Your task to perform on an android device: What's the weather going to be this weekend? Image 0: 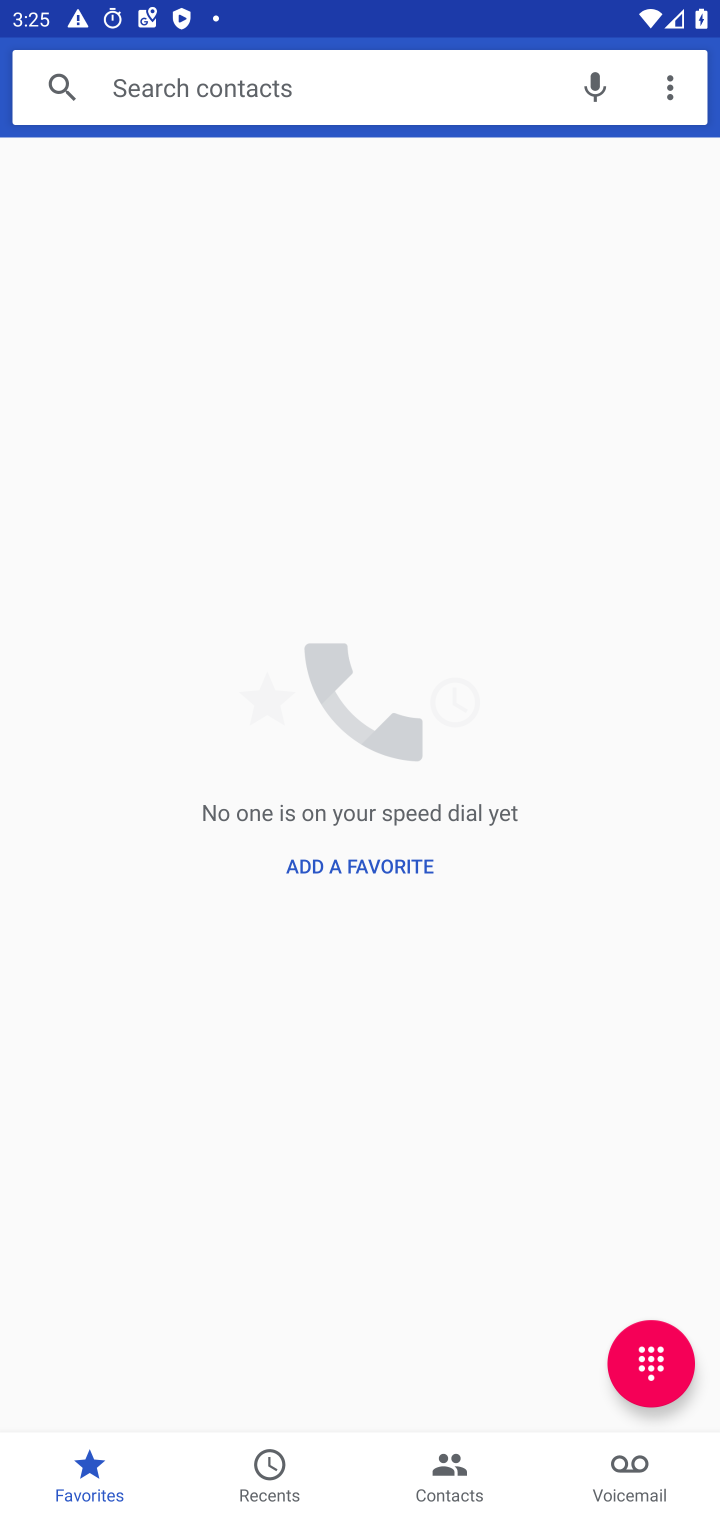
Step 0: press home button
Your task to perform on an android device: What's the weather going to be this weekend? Image 1: 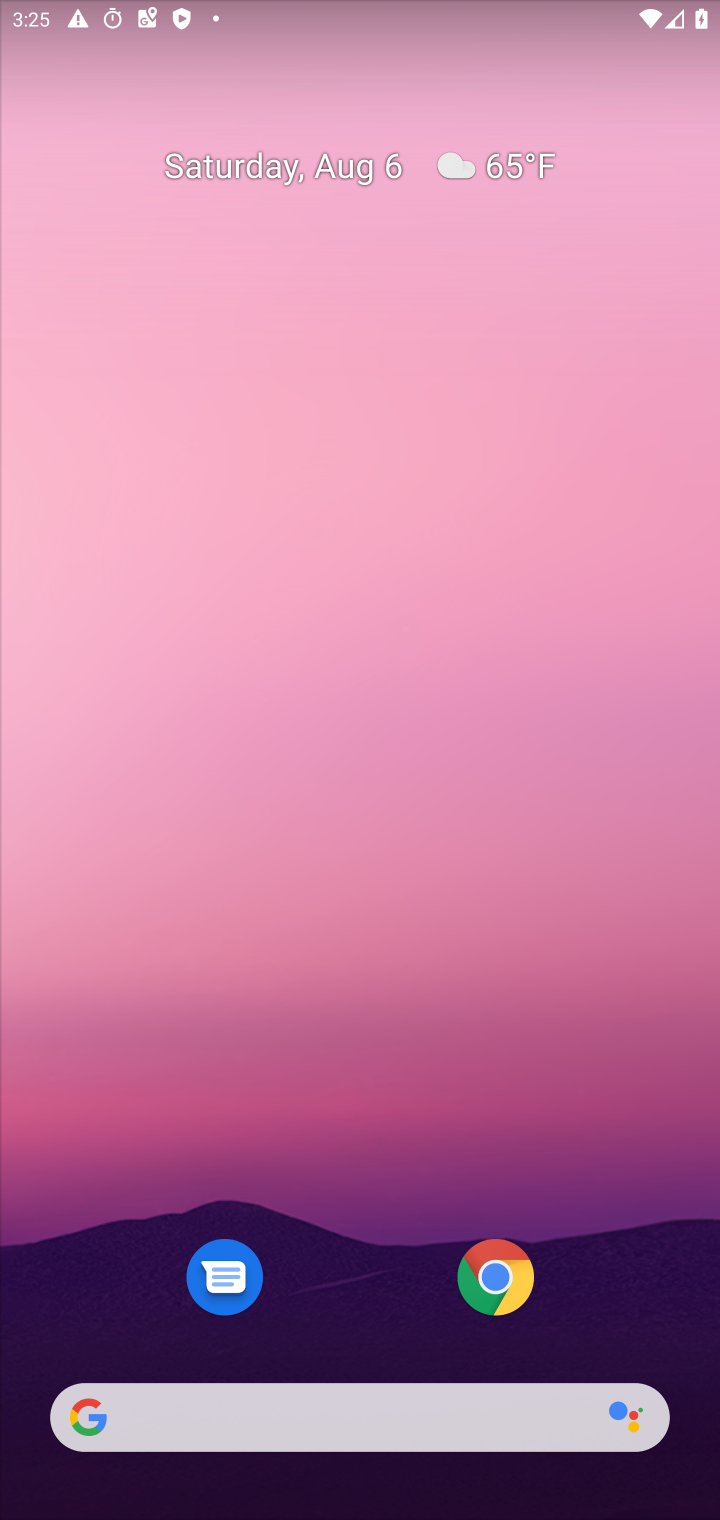
Step 1: drag from (421, 1426) to (229, 10)
Your task to perform on an android device: What's the weather going to be this weekend? Image 2: 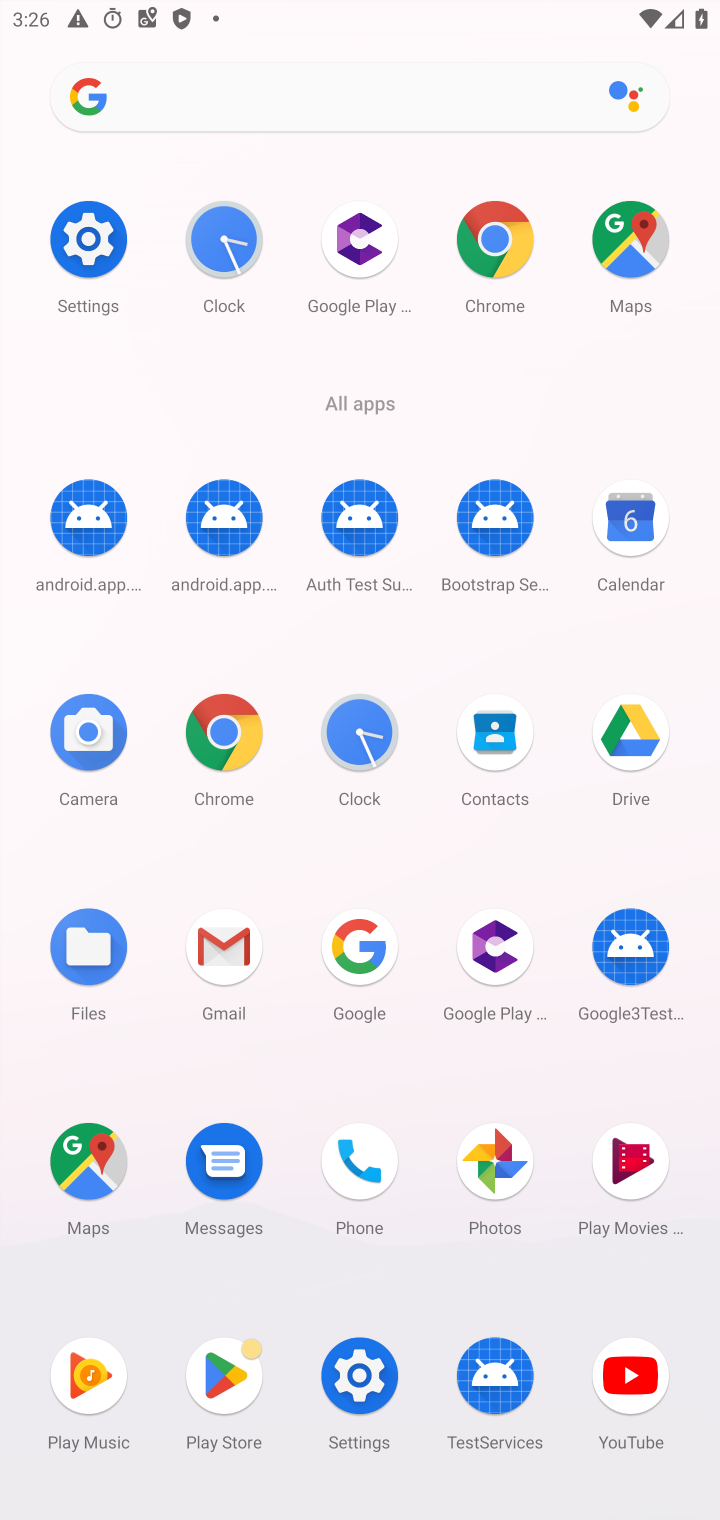
Step 2: click (362, 940)
Your task to perform on an android device: What's the weather going to be this weekend? Image 3: 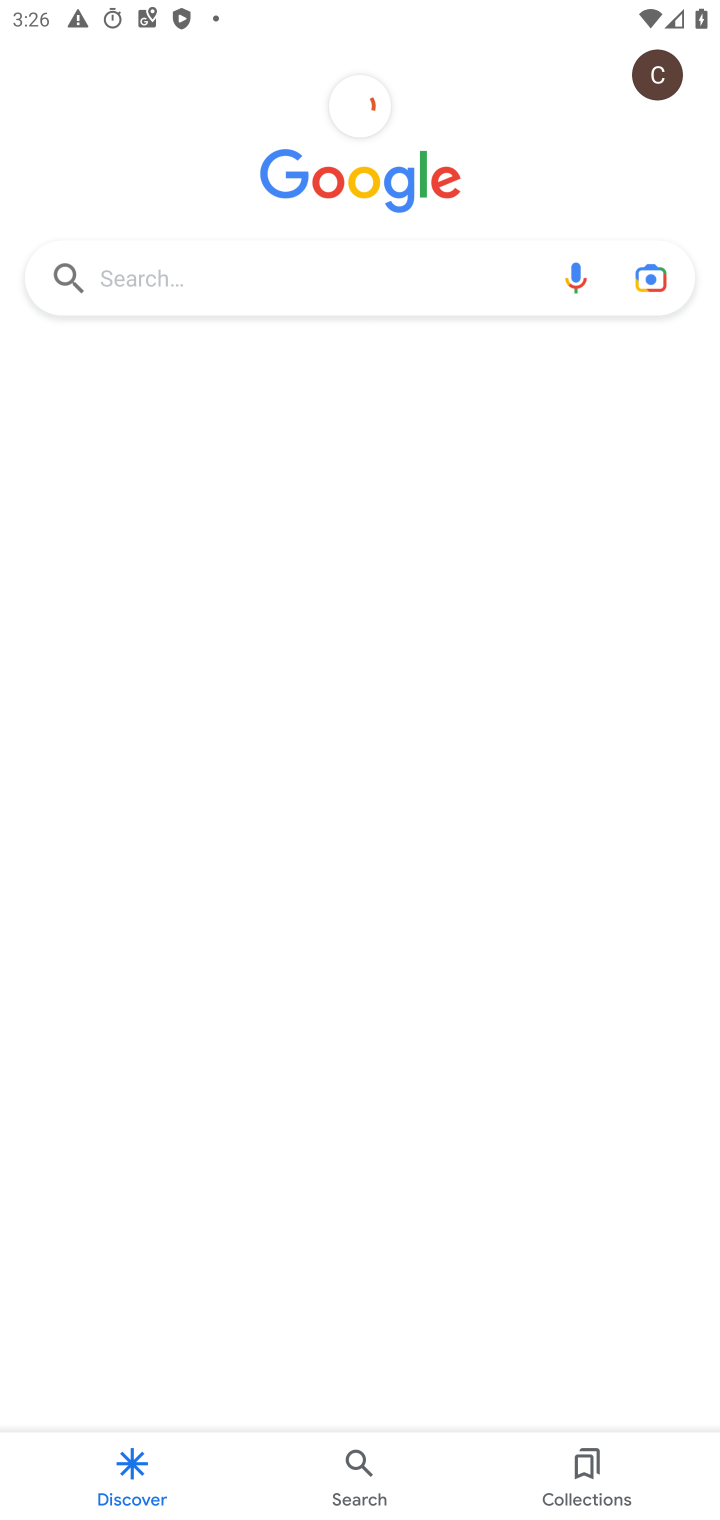
Step 3: click (355, 246)
Your task to perform on an android device: What's the weather going to be this weekend? Image 4: 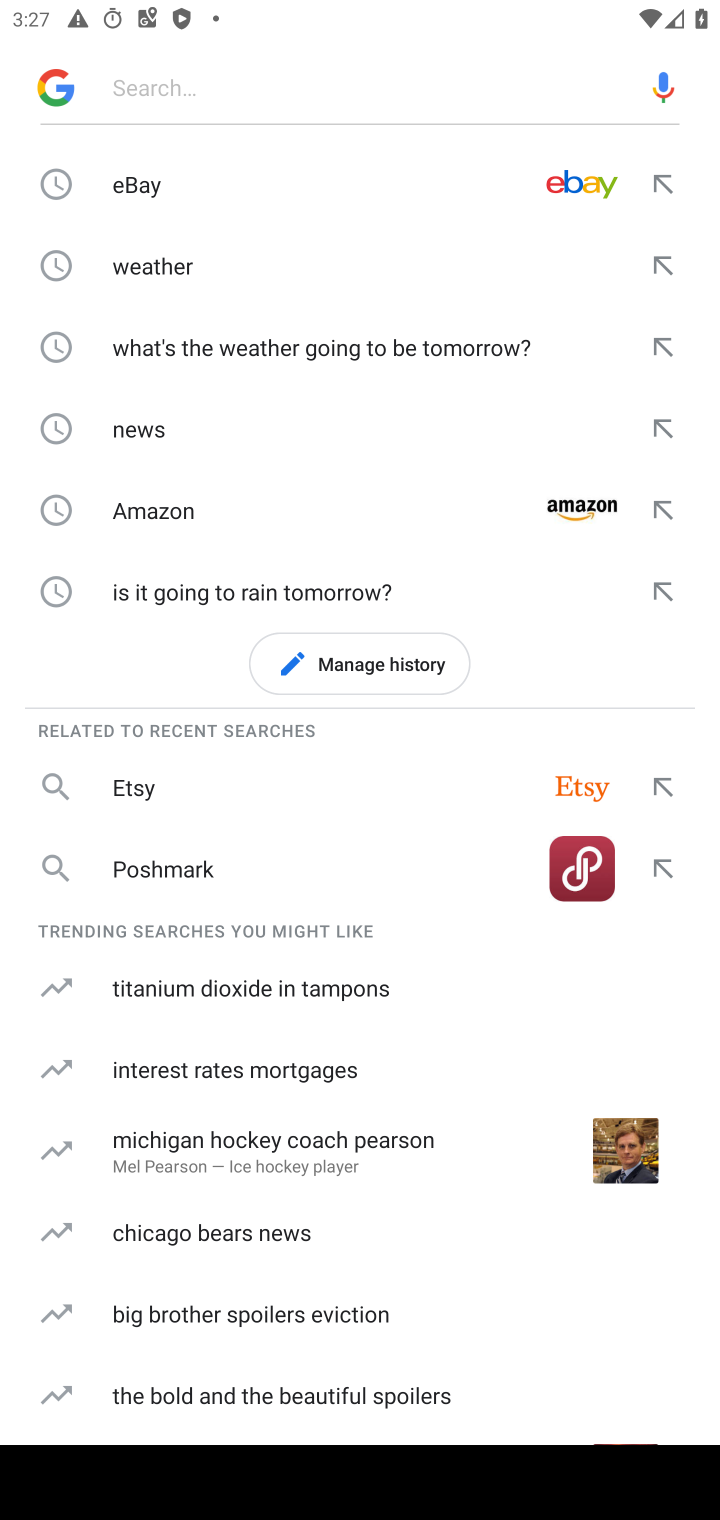
Step 4: type "weather going to be this weekend"
Your task to perform on an android device: What's the weather going to be this weekend? Image 5: 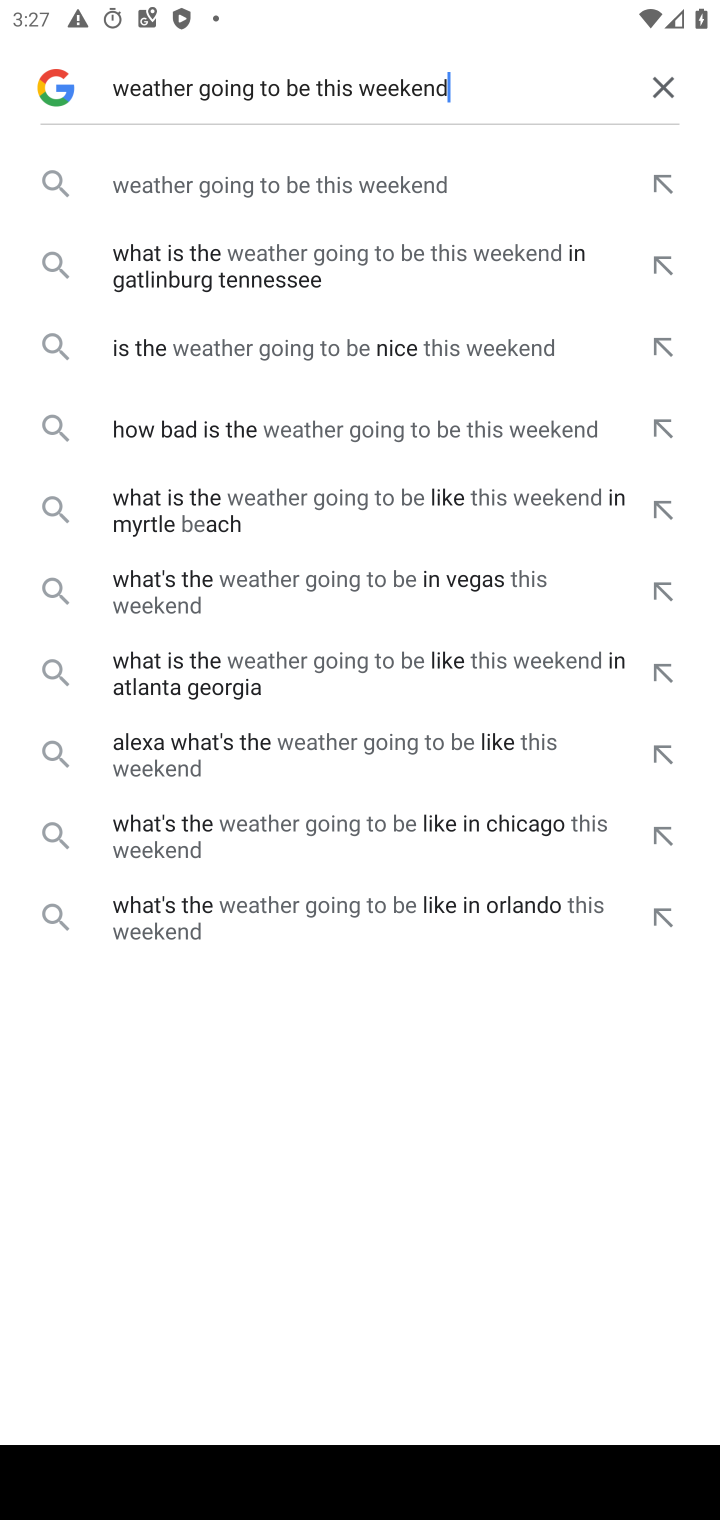
Step 5: click (490, 174)
Your task to perform on an android device: What's the weather going to be this weekend? Image 6: 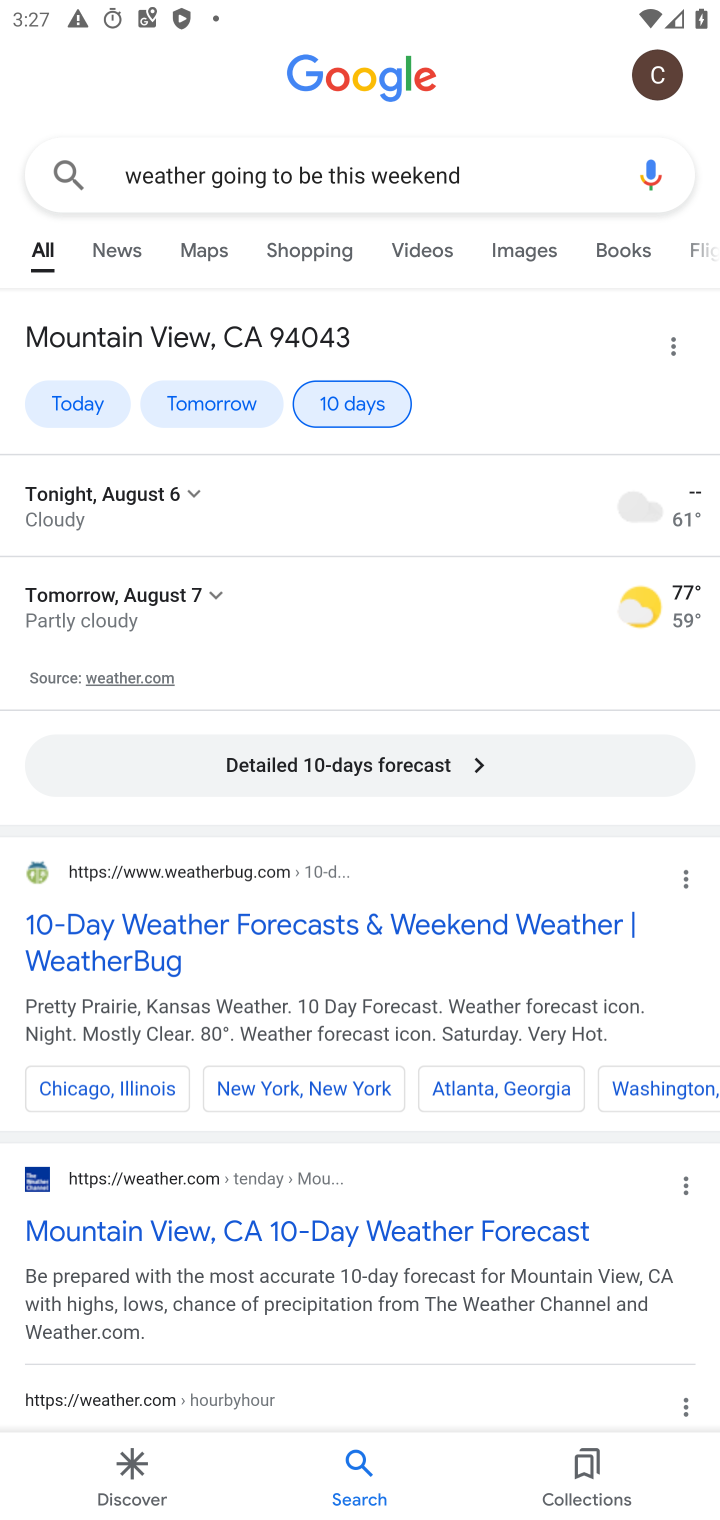
Step 6: task complete